Your task to perform on an android device: set the timer Image 0: 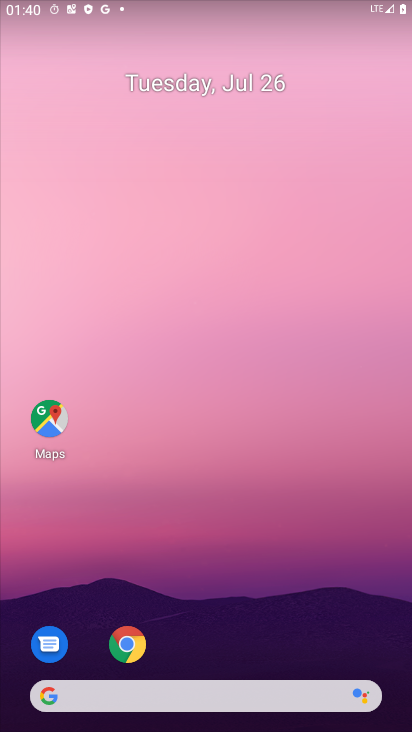
Step 0: drag from (243, 613) to (229, 19)
Your task to perform on an android device: set the timer Image 1: 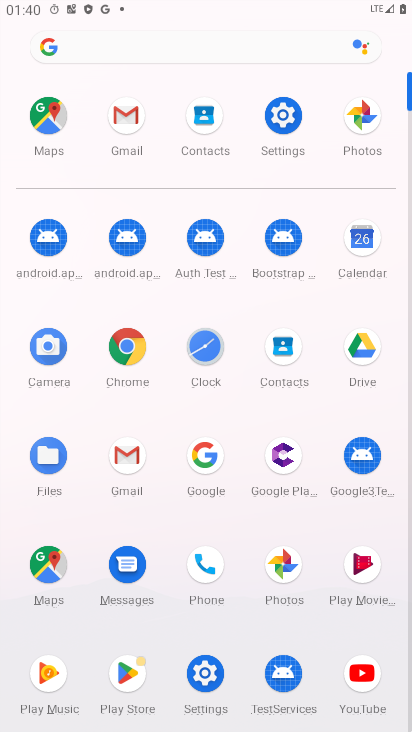
Step 1: click (212, 350)
Your task to perform on an android device: set the timer Image 2: 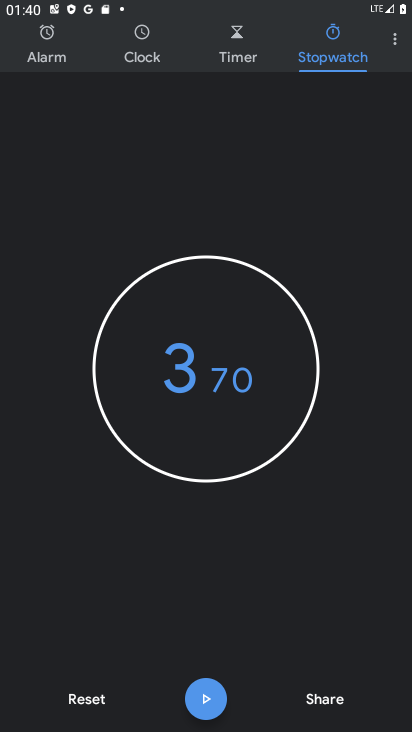
Step 2: click (239, 47)
Your task to perform on an android device: set the timer Image 3: 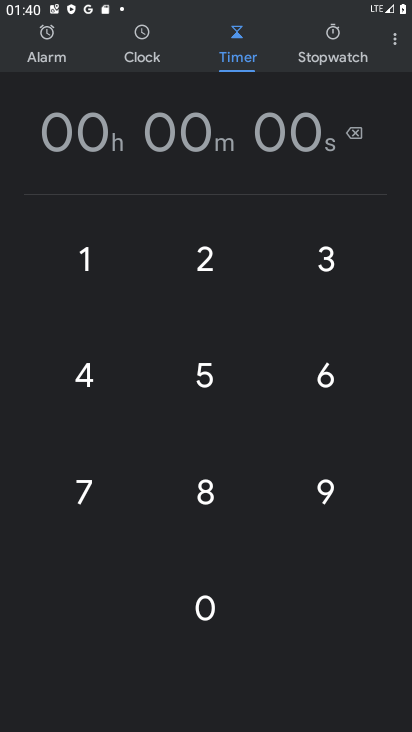
Step 3: click (203, 386)
Your task to perform on an android device: set the timer Image 4: 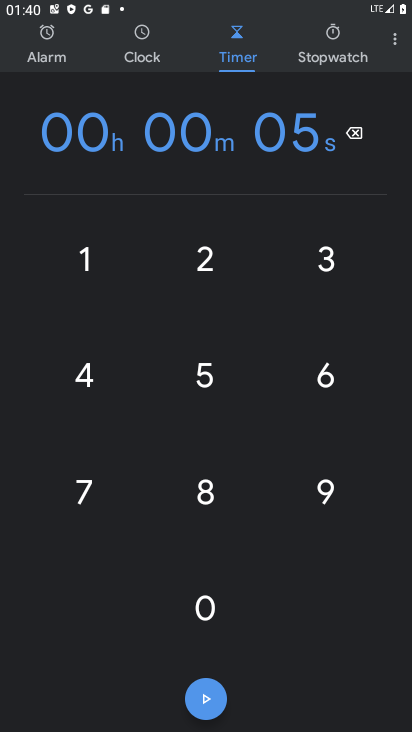
Step 4: click (202, 617)
Your task to perform on an android device: set the timer Image 5: 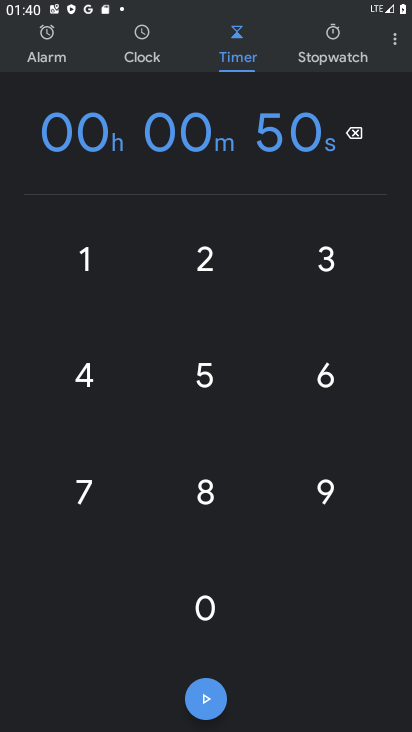
Step 5: click (196, 691)
Your task to perform on an android device: set the timer Image 6: 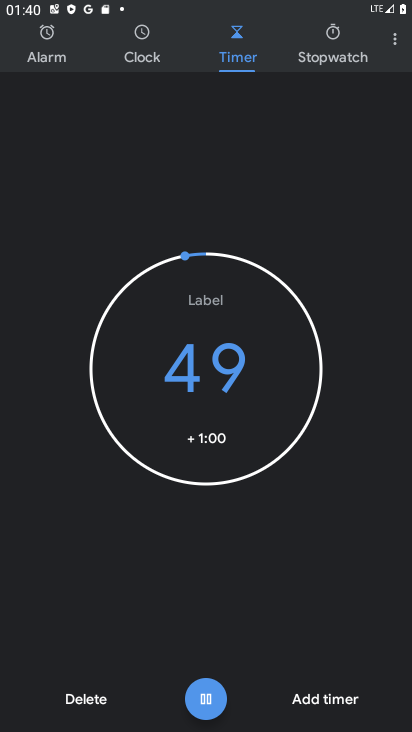
Step 6: task complete